Your task to perform on an android device: Go to Yahoo.com Image 0: 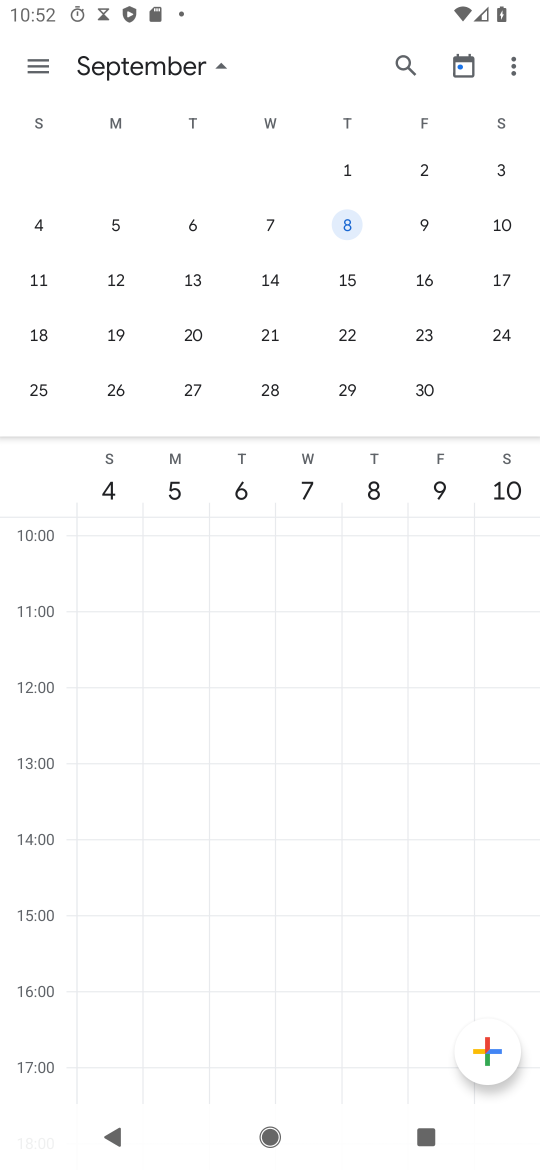
Step 0: press back button
Your task to perform on an android device: Go to Yahoo.com Image 1: 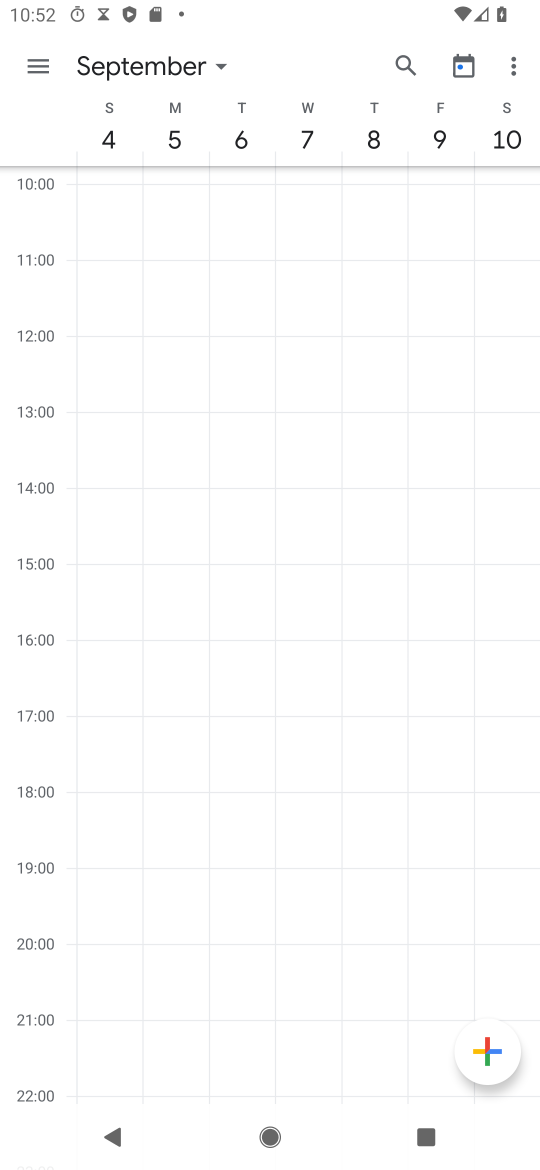
Step 1: press home button
Your task to perform on an android device: Go to Yahoo.com Image 2: 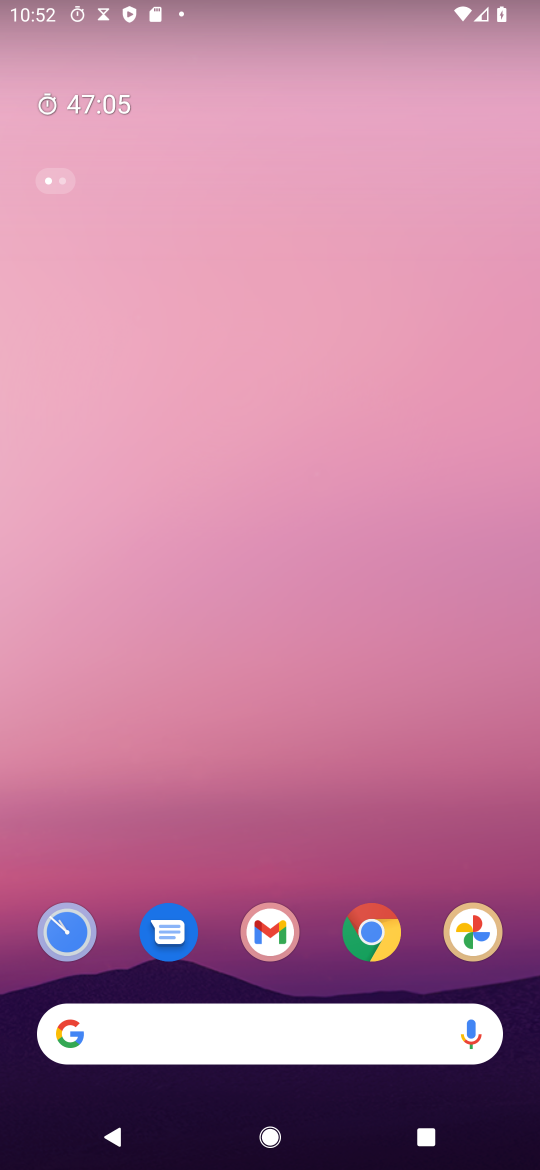
Step 2: click (380, 923)
Your task to perform on an android device: Go to Yahoo.com Image 3: 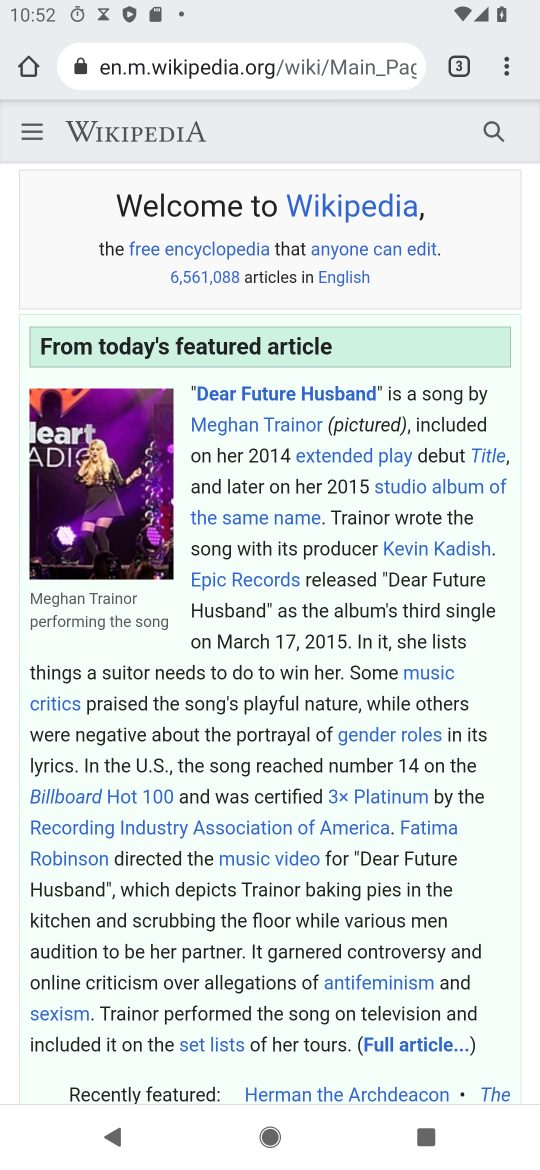
Step 3: click (498, 68)
Your task to perform on an android device: Go to Yahoo.com Image 4: 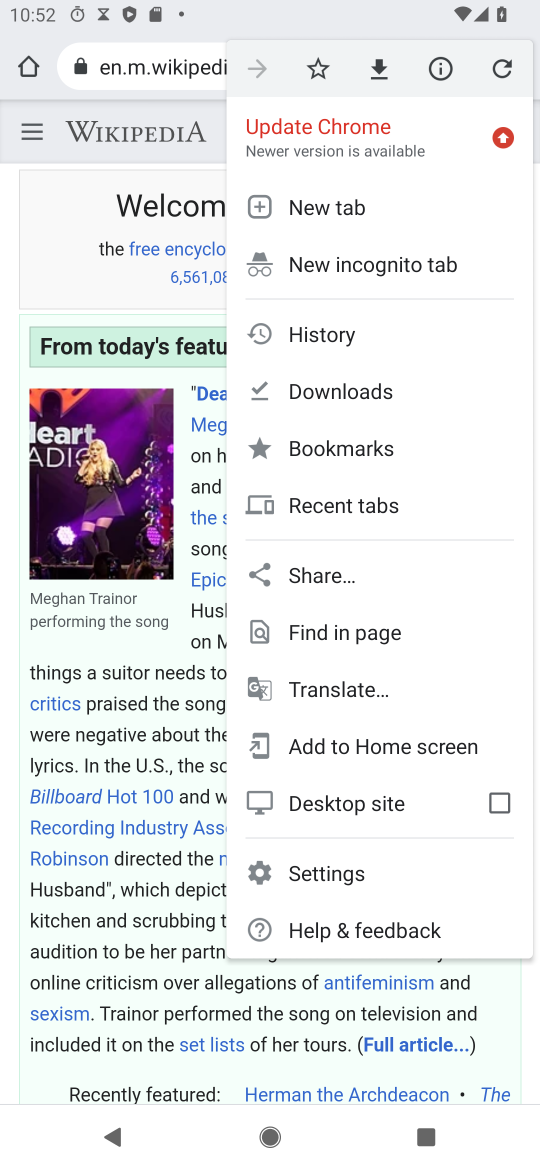
Step 4: click (336, 200)
Your task to perform on an android device: Go to Yahoo.com Image 5: 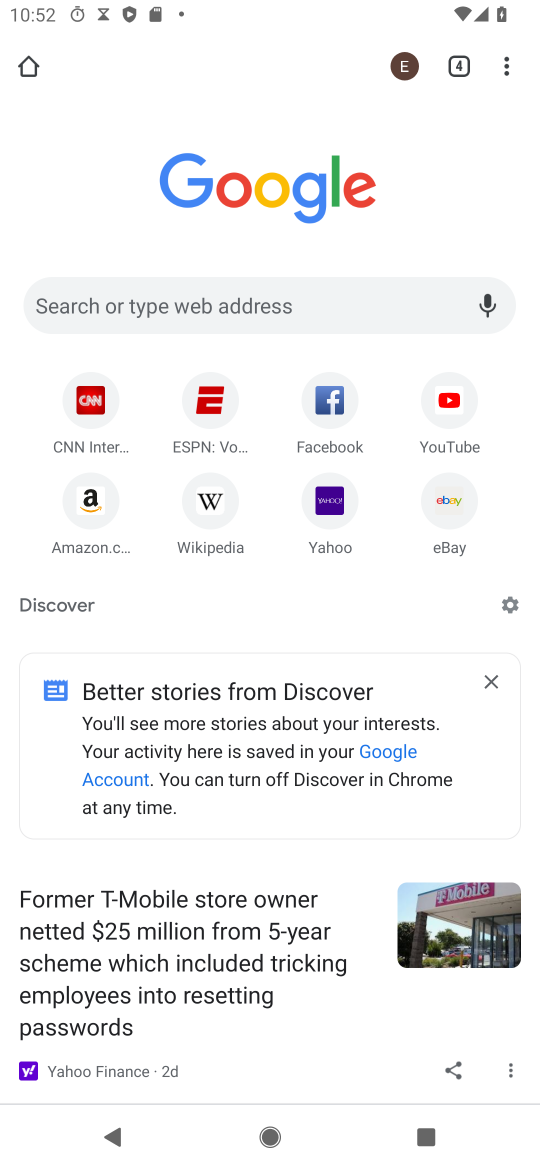
Step 5: click (316, 503)
Your task to perform on an android device: Go to Yahoo.com Image 6: 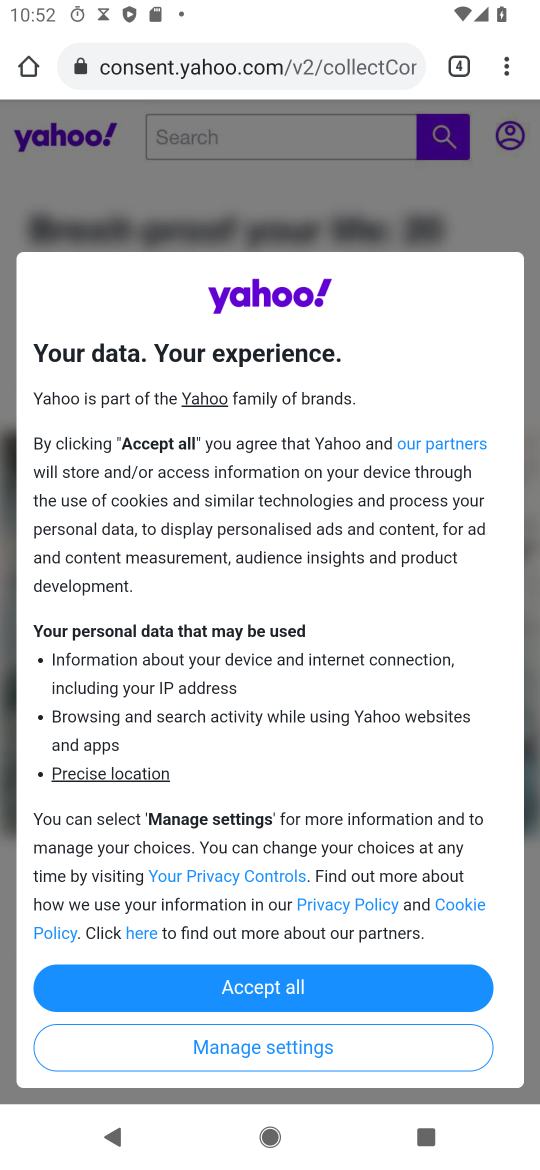
Step 6: task complete